Your task to perform on an android device: toggle notification dots Image 0: 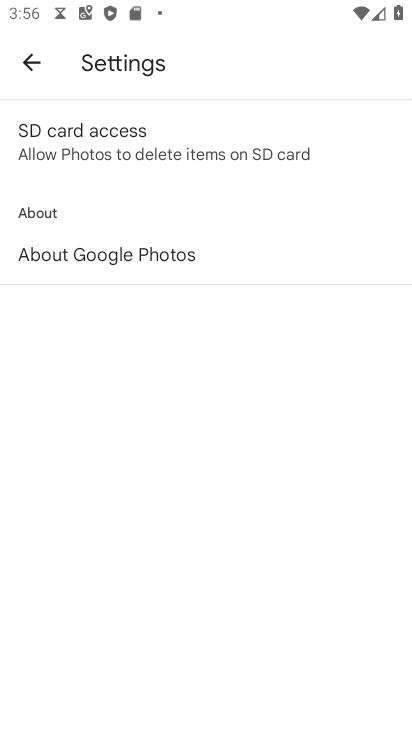
Step 0: press home button
Your task to perform on an android device: toggle notification dots Image 1: 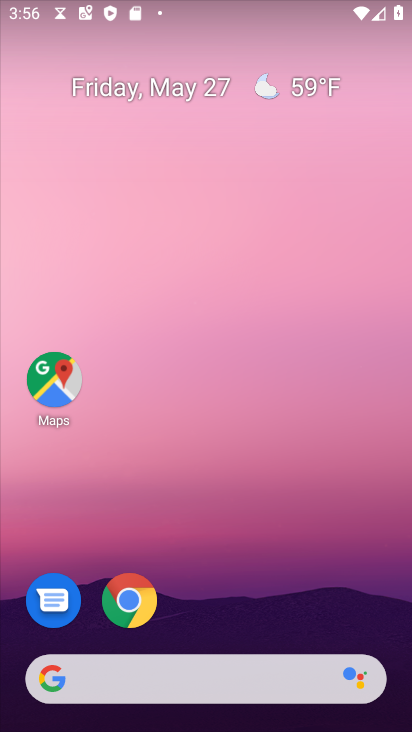
Step 1: drag from (277, 557) to (307, 282)
Your task to perform on an android device: toggle notification dots Image 2: 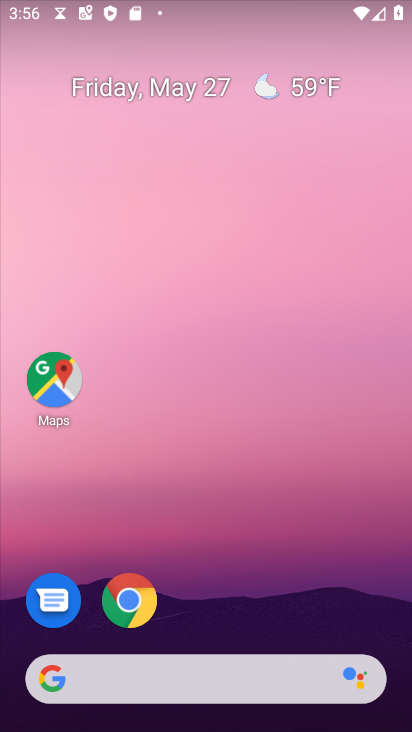
Step 2: drag from (223, 603) to (187, 160)
Your task to perform on an android device: toggle notification dots Image 3: 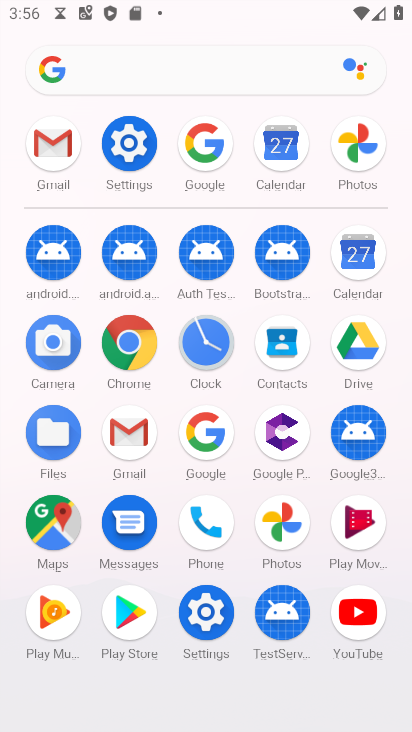
Step 3: click (130, 142)
Your task to perform on an android device: toggle notification dots Image 4: 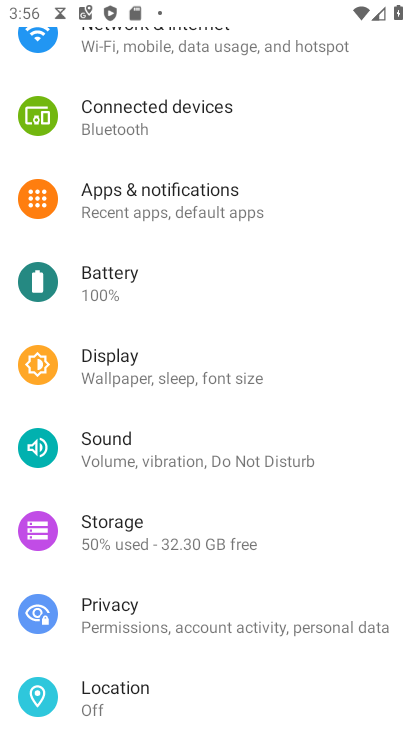
Step 4: click (203, 199)
Your task to perform on an android device: toggle notification dots Image 5: 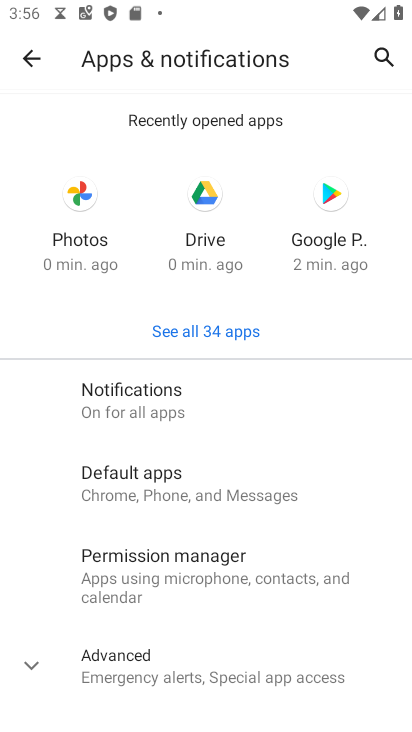
Step 5: click (168, 403)
Your task to perform on an android device: toggle notification dots Image 6: 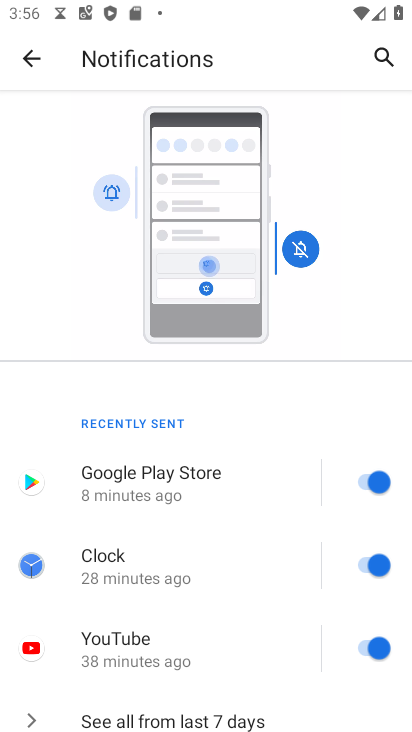
Step 6: drag from (154, 523) to (157, 375)
Your task to perform on an android device: toggle notification dots Image 7: 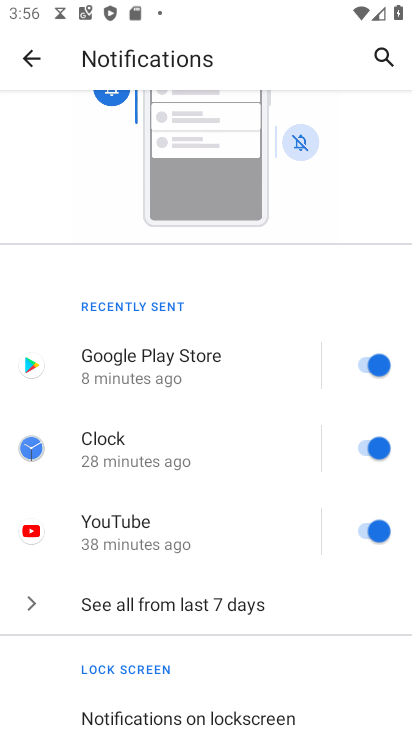
Step 7: drag from (134, 487) to (129, 326)
Your task to perform on an android device: toggle notification dots Image 8: 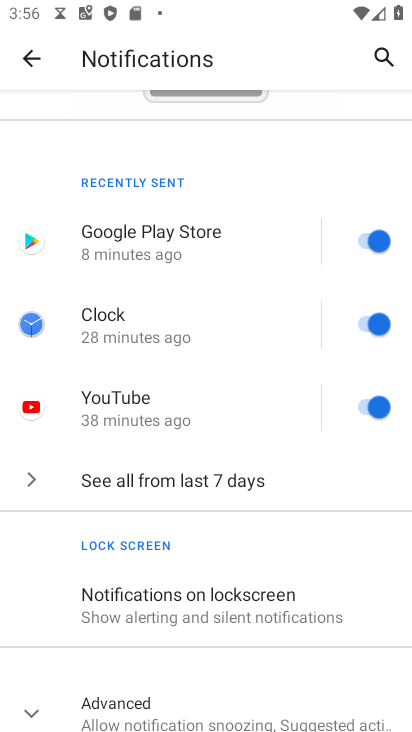
Step 8: drag from (146, 523) to (160, 368)
Your task to perform on an android device: toggle notification dots Image 9: 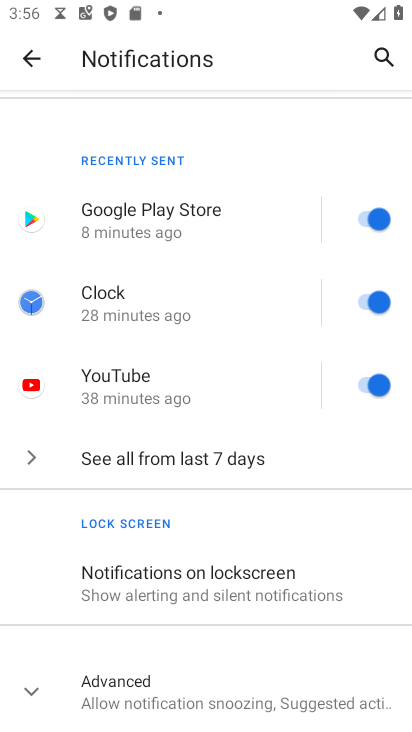
Step 9: click (194, 703)
Your task to perform on an android device: toggle notification dots Image 10: 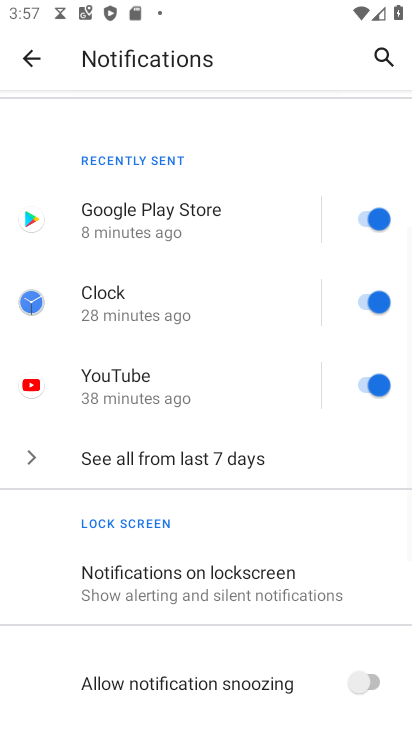
Step 10: drag from (191, 647) to (201, 484)
Your task to perform on an android device: toggle notification dots Image 11: 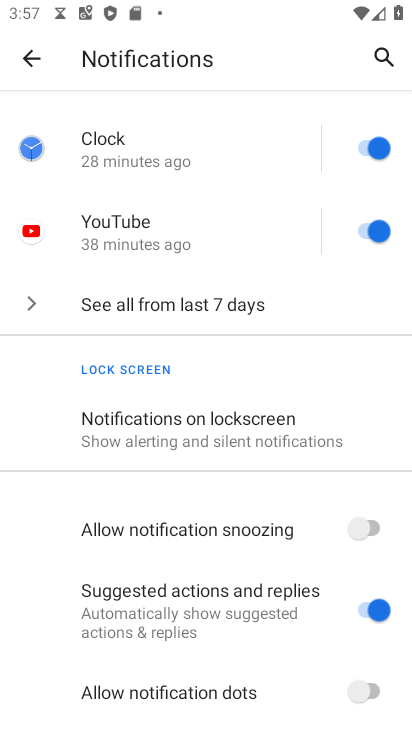
Step 11: drag from (169, 558) to (162, 465)
Your task to perform on an android device: toggle notification dots Image 12: 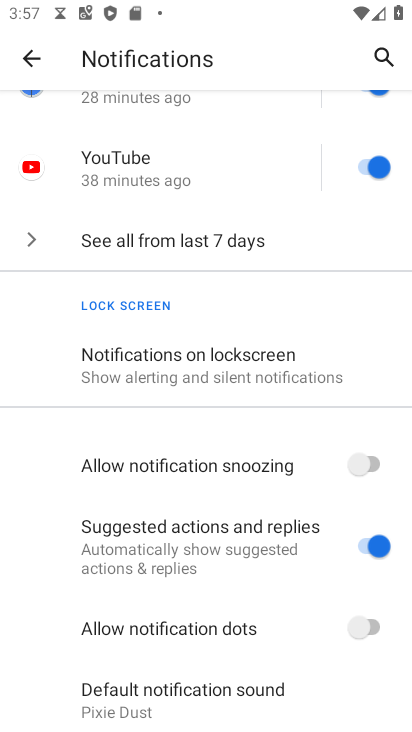
Step 12: drag from (160, 568) to (168, 463)
Your task to perform on an android device: toggle notification dots Image 13: 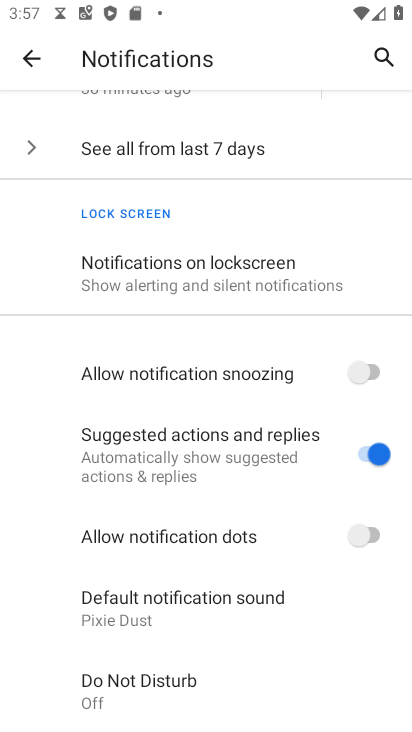
Step 13: click (355, 538)
Your task to perform on an android device: toggle notification dots Image 14: 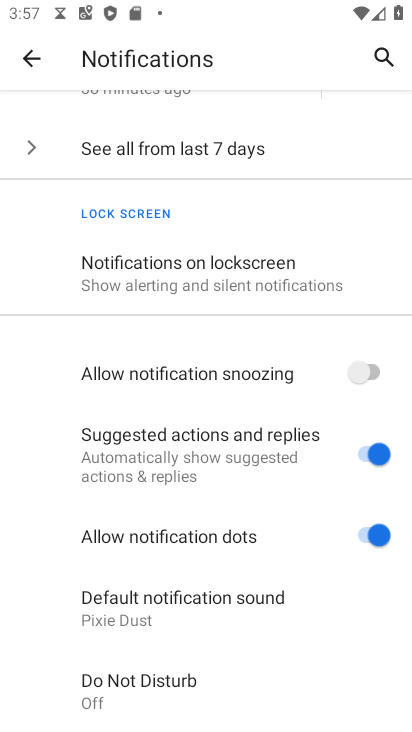
Step 14: task complete